Your task to perform on an android device: turn on improve location accuracy Image 0: 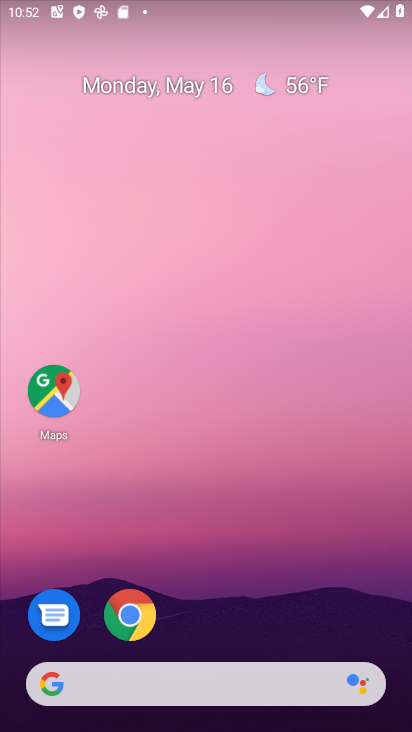
Step 0: drag from (208, 710) to (198, 265)
Your task to perform on an android device: turn on improve location accuracy Image 1: 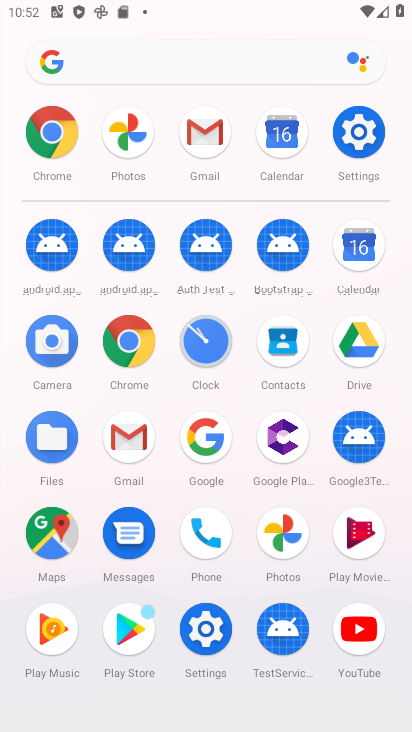
Step 1: click (369, 154)
Your task to perform on an android device: turn on improve location accuracy Image 2: 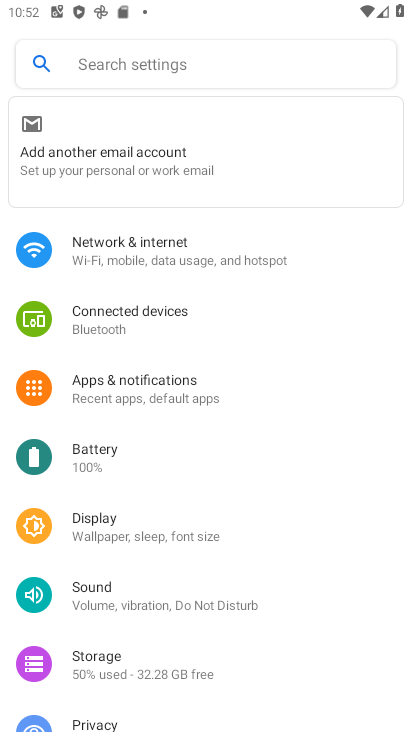
Step 2: click (190, 70)
Your task to perform on an android device: turn on improve location accuracy Image 3: 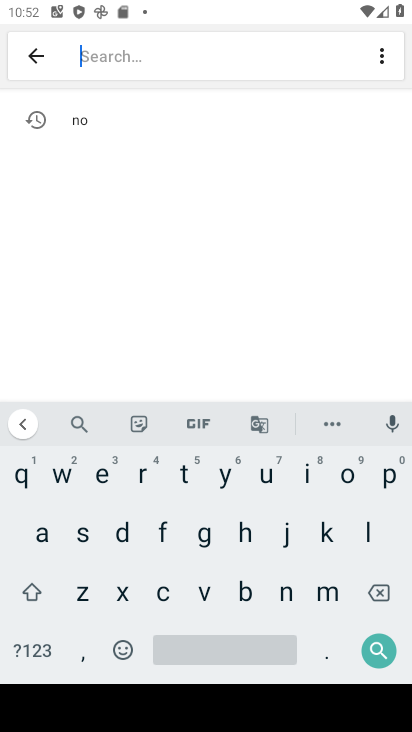
Step 3: click (379, 527)
Your task to perform on an android device: turn on improve location accuracy Image 4: 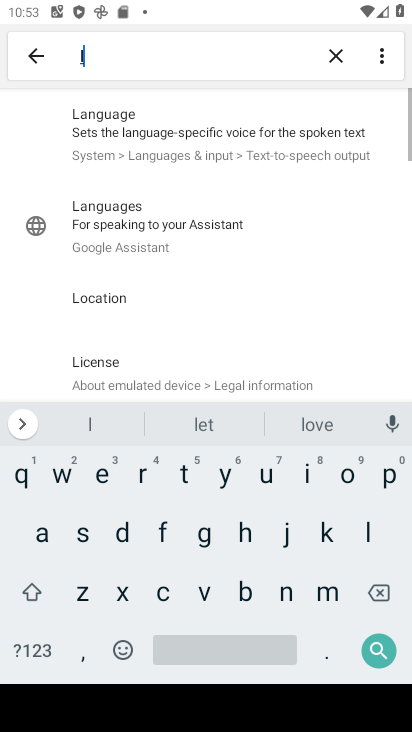
Step 4: click (352, 485)
Your task to perform on an android device: turn on improve location accuracy Image 5: 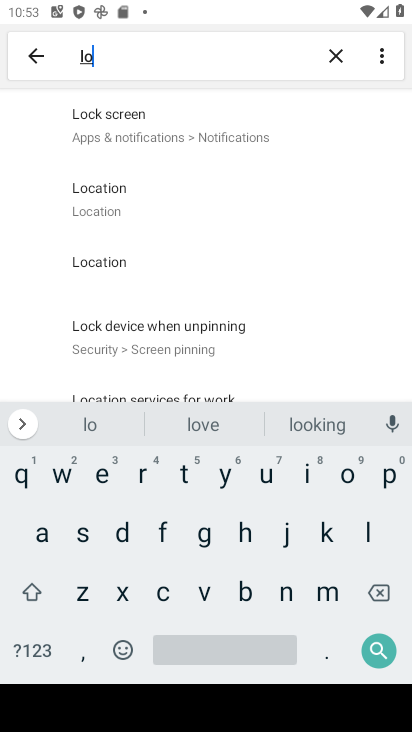
Step 5: click (103, 217)
Your task to perform on an android device: turn on improve location accuracy Image 6: 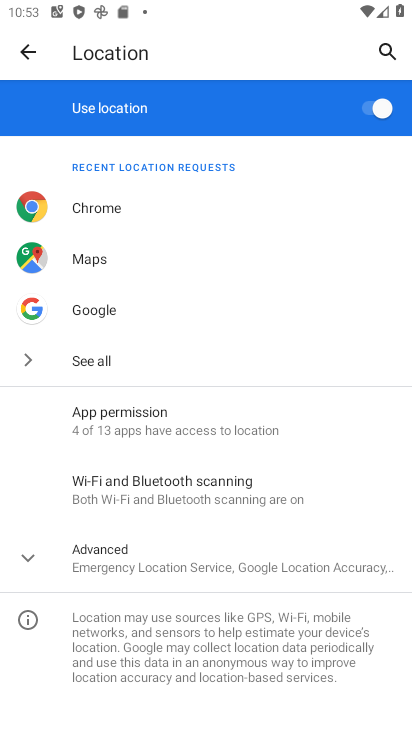
Step 6: click (65, 545)
Your task to perform on an android device: turn on improve location accuracy Image 7: 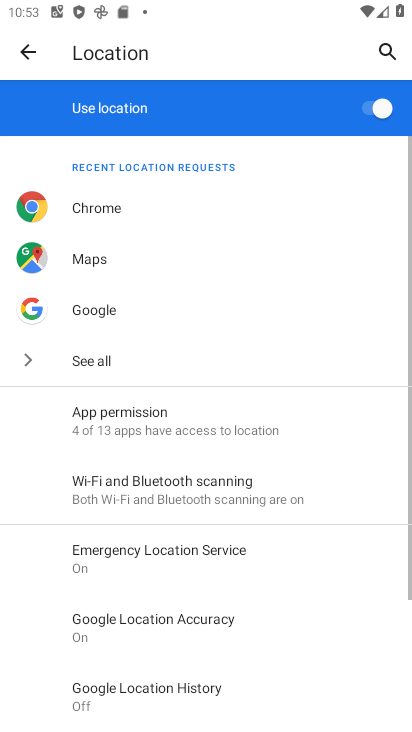
Step 7: drag from (159, 528) to (232, 273)
Your task to perform on an android device: turn on improve location accuracy Image 8: 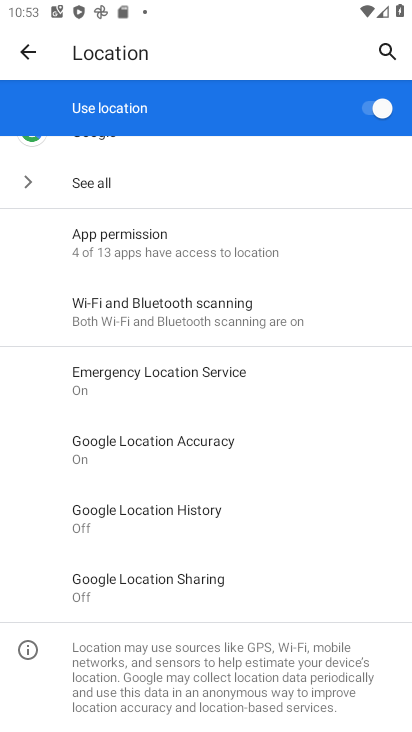
Step 8: click (179, 431)
Your task to perform on an android device: turn on improve location accuracy Image 9: 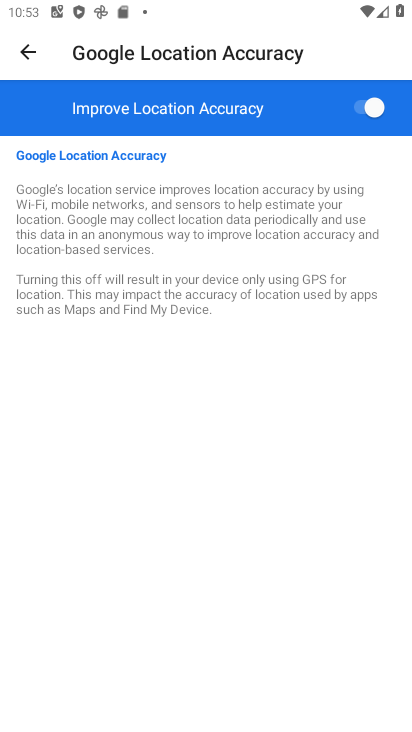
Step 9: click (376, 109)
Your task to perform on an android device: turn on improve location accuracy Image 10: 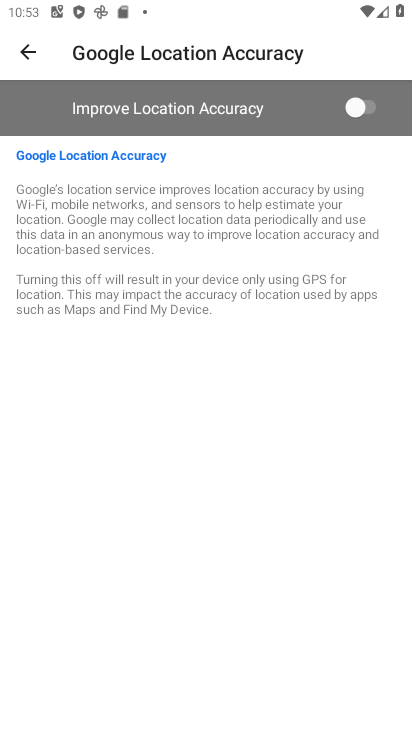
Step 10: click (376, 109)
Your task to perform on an android device: turn on improve location accuracy Image 11: 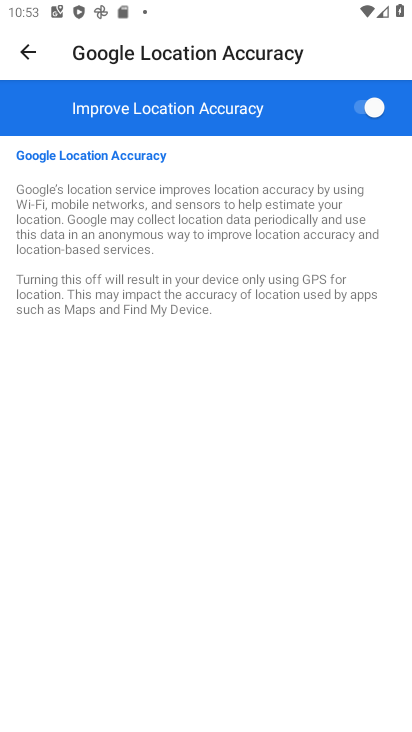
Step 11: task complete